Your task to perform on an android device: Go to privacy settings Image 0: 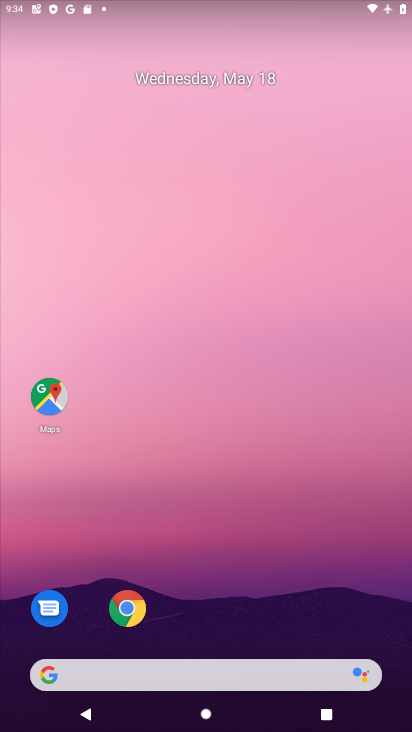
Step 0: drag from (331, 632) to (254, 88)
Your task to perform on an android device: Go to privacy settings Image 1: 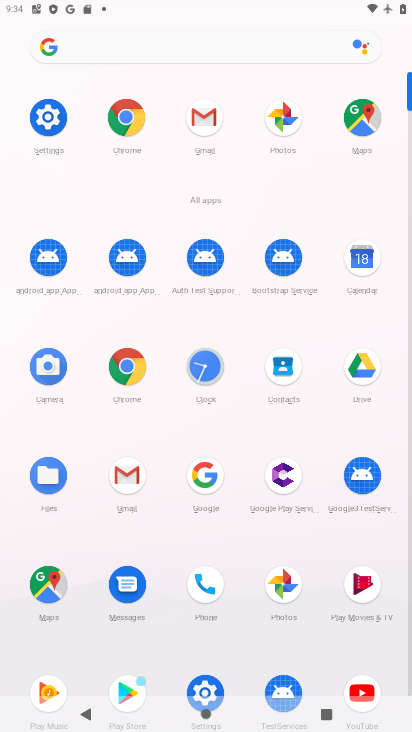
Step 1: click (57, 137)
Your task to perform on an android device: Go to privacy settings Image 2: 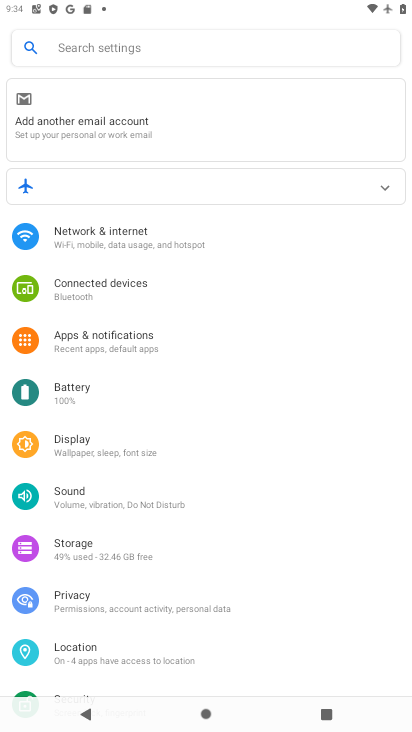
Step 2: click (157, 619)
Your task to perform on an android device: Go to privacy settings Image 3: 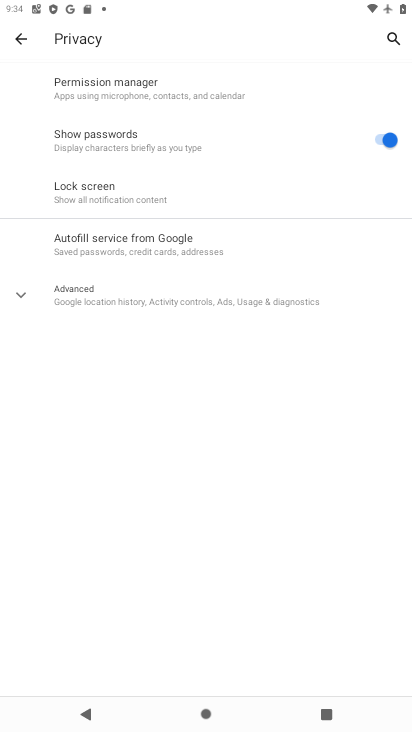
Step 3: task complete